Your task to perform on an android device: Search for a new blush Image 0: 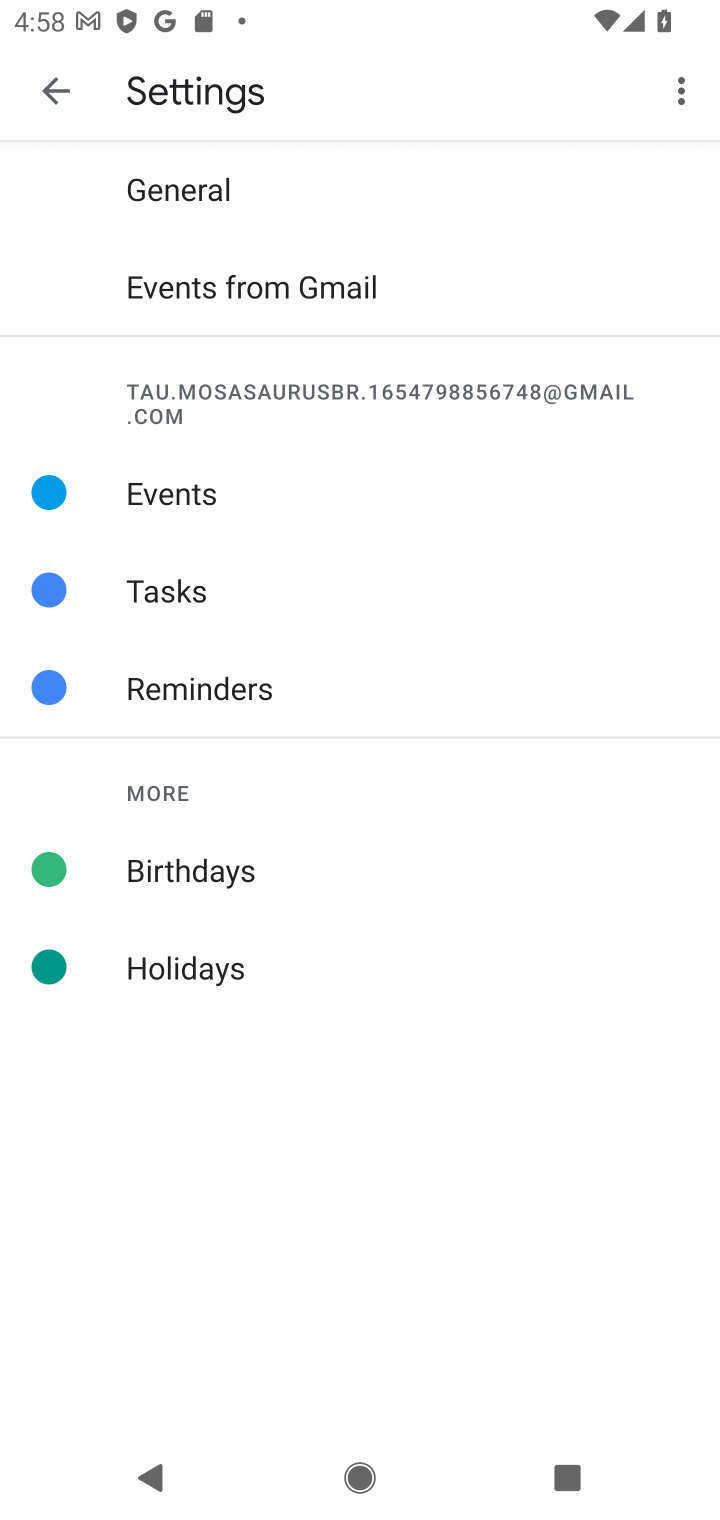
Step 0: press home button
Your task to perform on an android device: Search for a new blush Image 1: 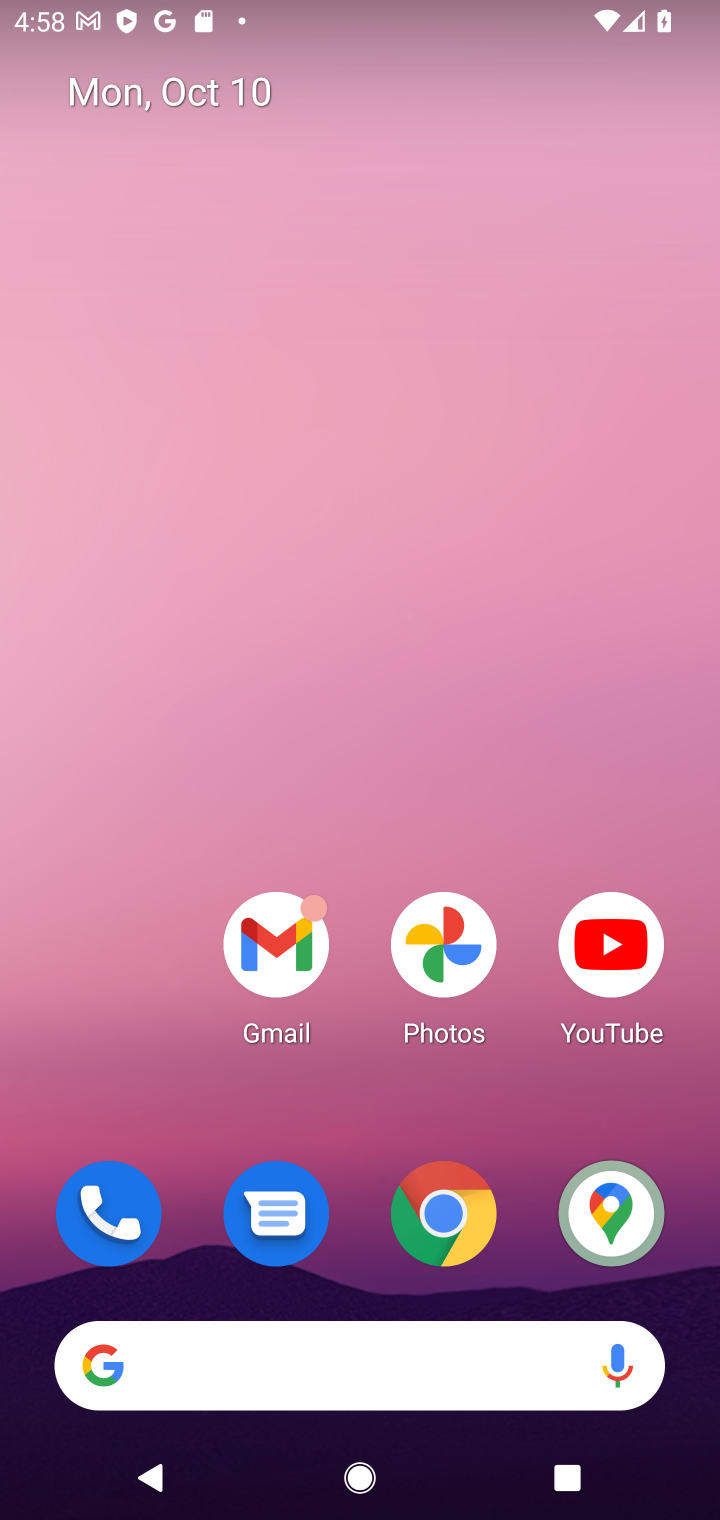
Step 1: click (249, 1376)
Your task to perform on an android device: Search for a new blush Image 2: 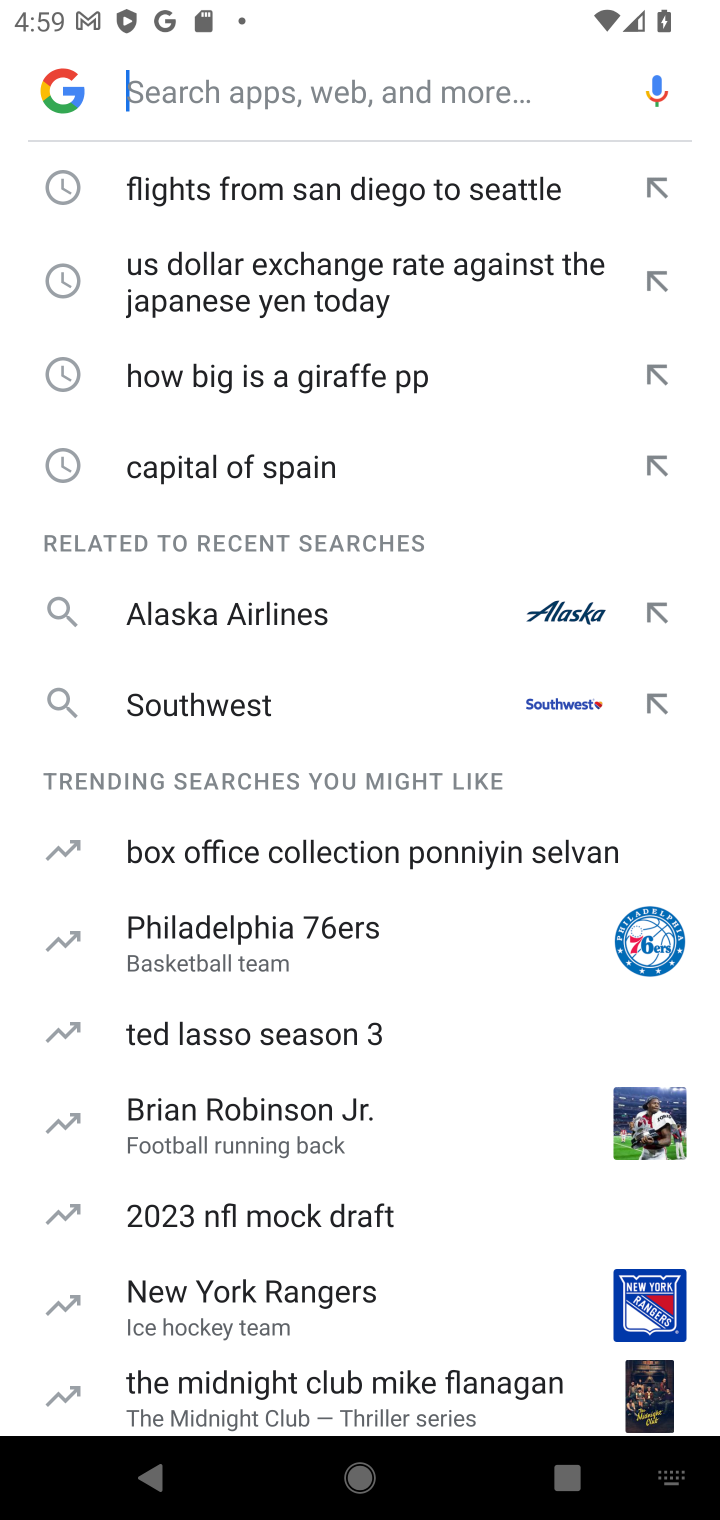
Step 2: type "new blush"
Your task to perform on an android device: Search for a new blush Image 3: 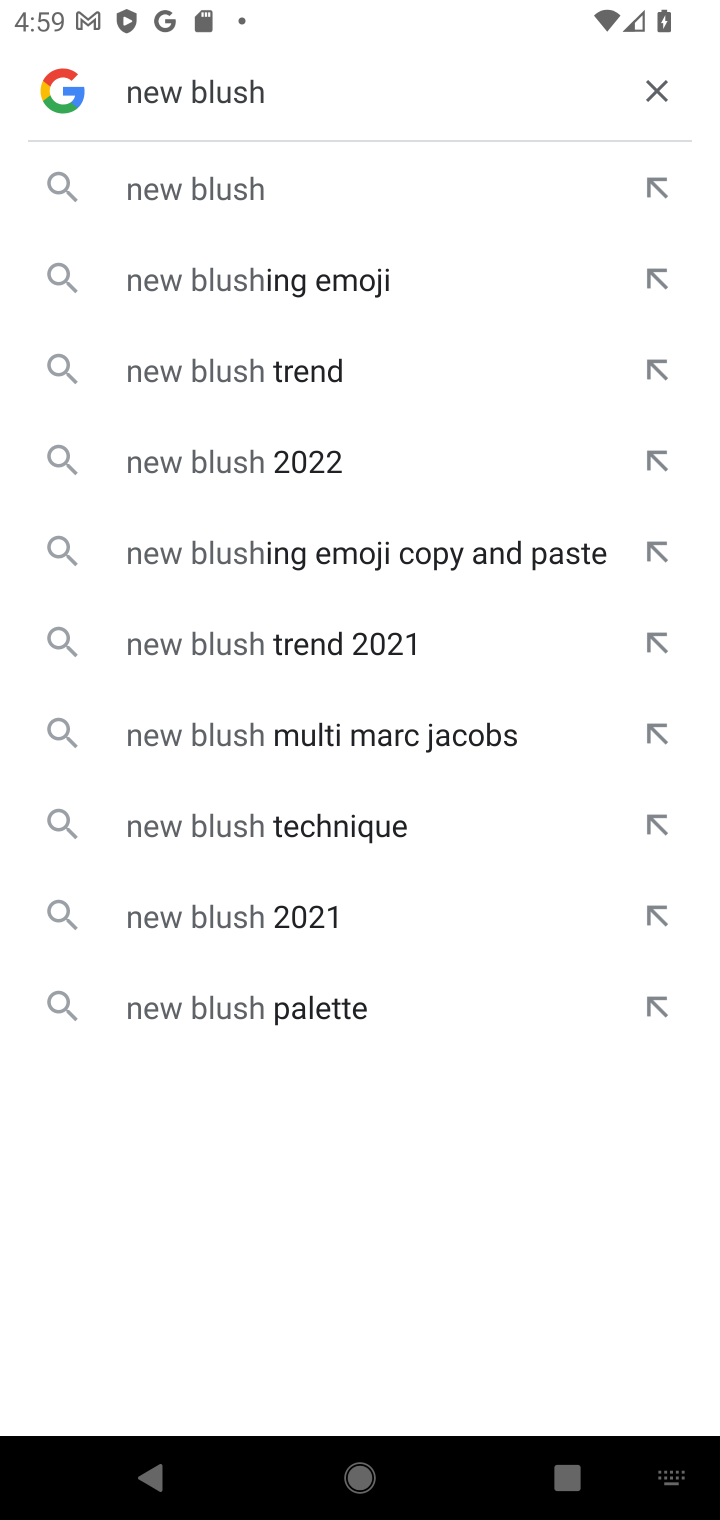
Step 3: click (262, 199)
Your task to perform on an android device: Search for a new blush Image 4: 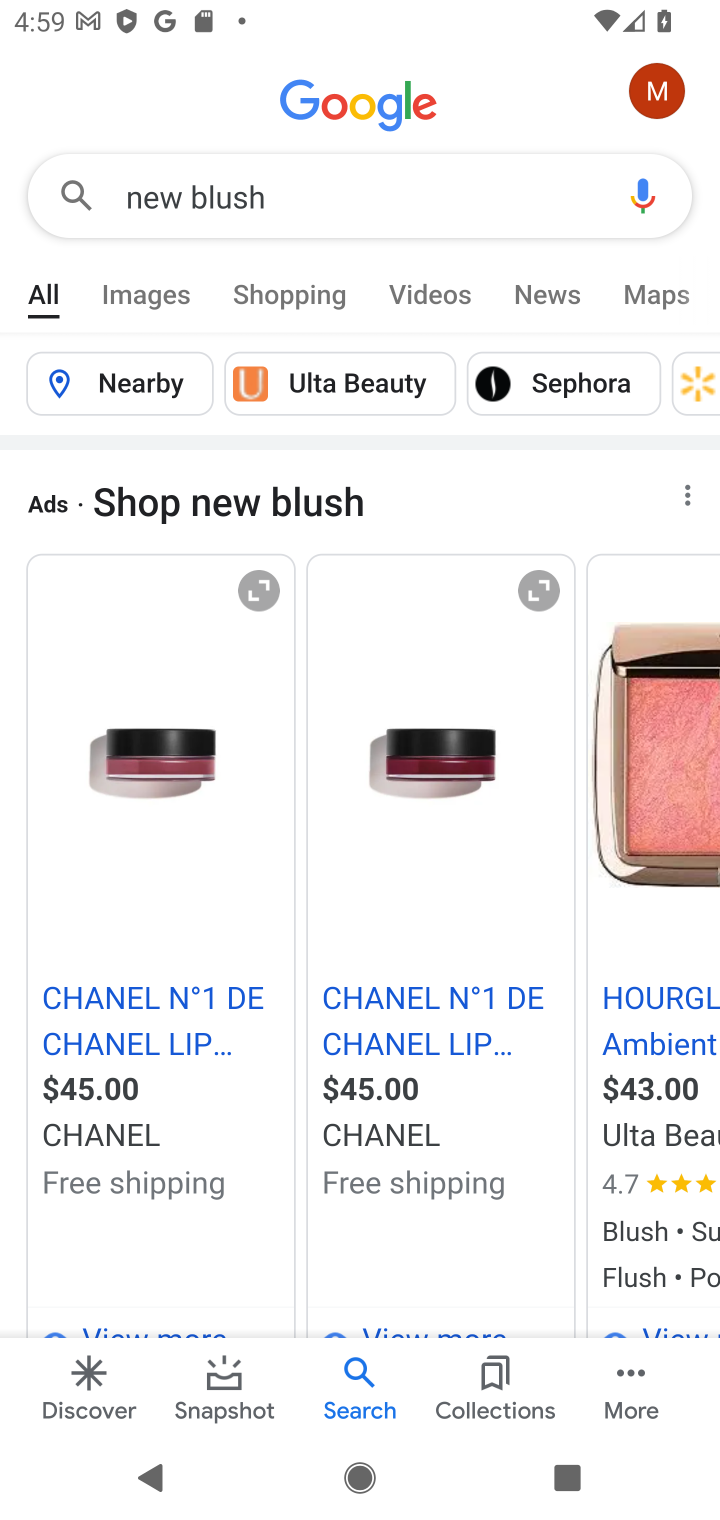
Step 4: task complete